Your task to perform on an android device: Search for sushi restaurants on Maps Image 0: 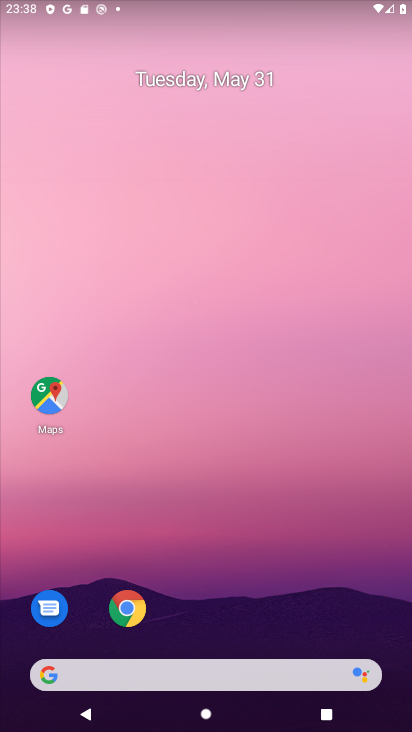
Step 0: click (59, 395)
Your task to perform on an android device: Search for sushi restaurants on Maps Image 1: 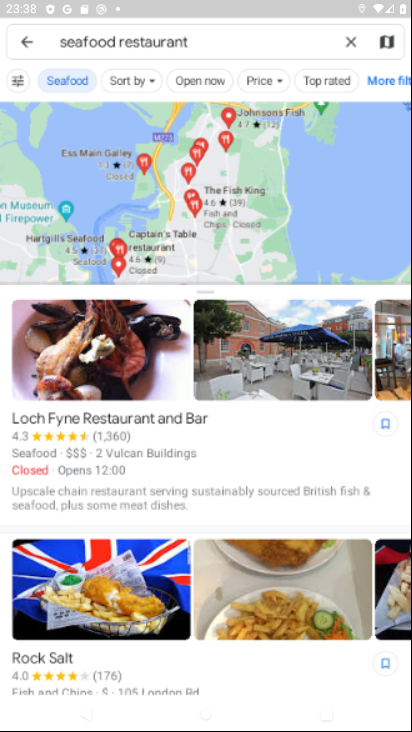
Step 1: click (348, 39)
Your task to perform on an android device: Search for sushi restaurants on Maps Image 2: 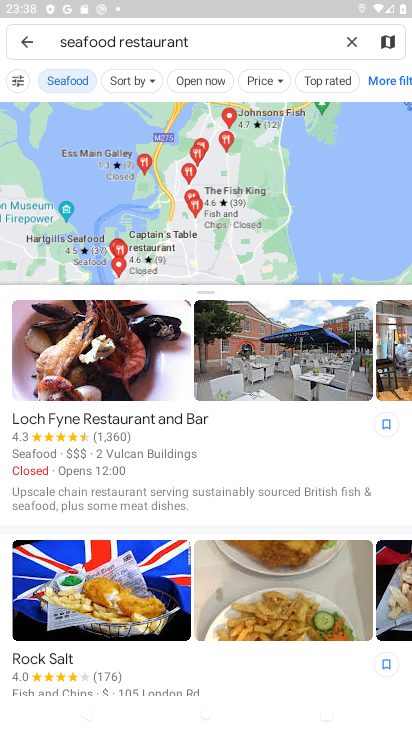
Step 2: click (349, 37)
Your task to perform on an android device: Search for sushi restaurants on Maps Image 3: 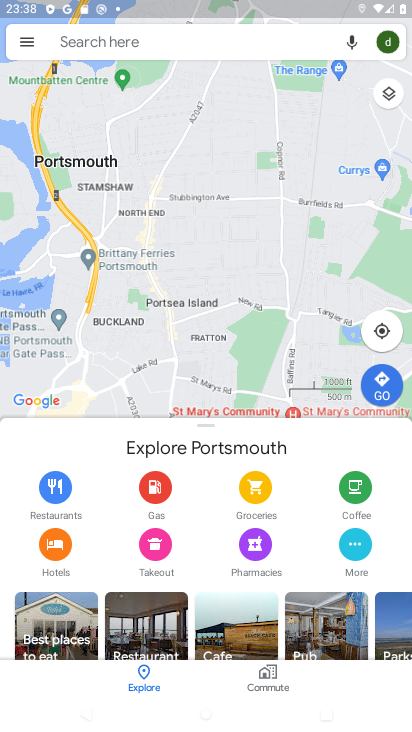
Step 3: click (210, 40)
Your task to perform on an android device: Search for sushi restaurants on Maps Image 4: 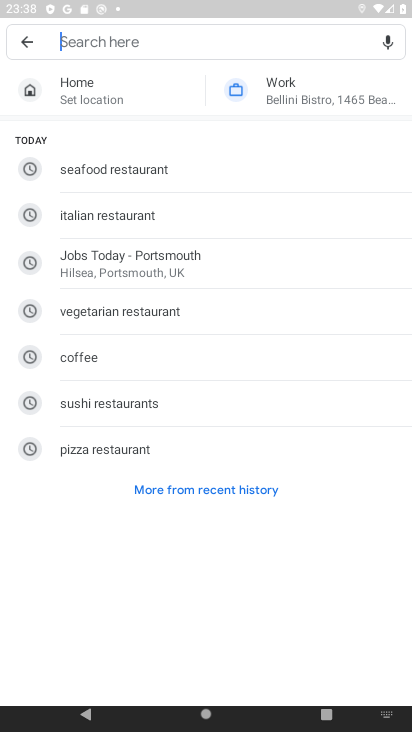
Step 4: click (210, 40)
Your task to perform on an android device: Search for sushi restaurants on Maps Image 5: 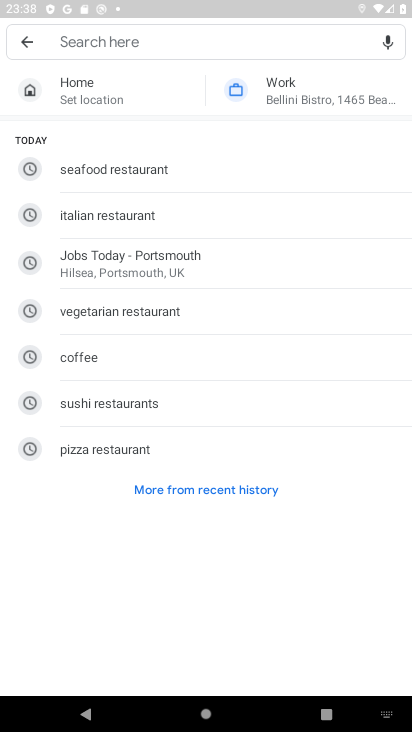
Step 5: click (210, 40)
Your task to perform on an android device: Search for sushi restaurants on Maps Image 6: 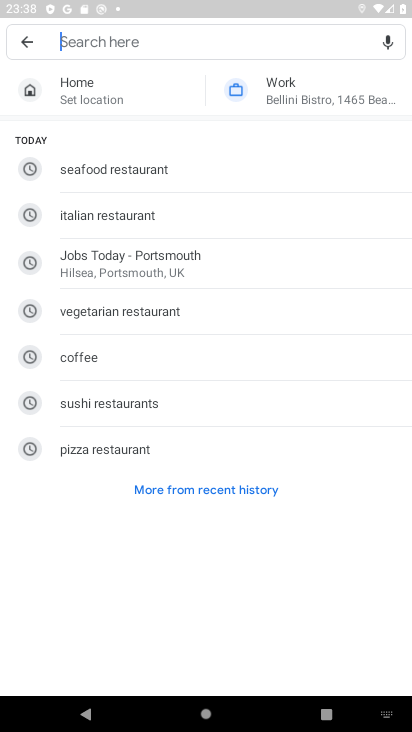
Step 6: type " sushi restaurants"
Your task to perform on an android device: Search for sushi restaurants on Maps Image 7: 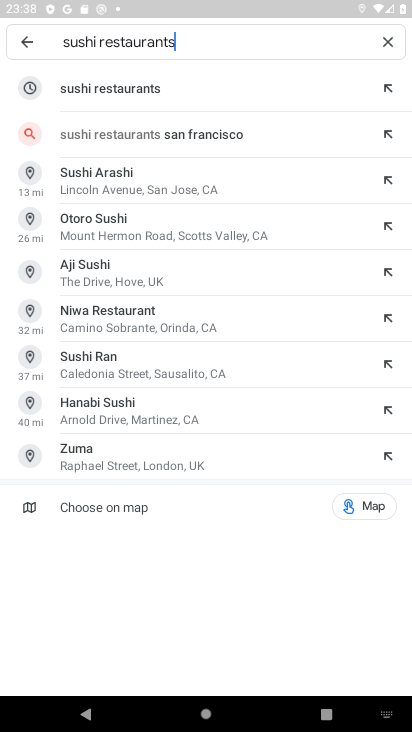
Step 7: click (53, 79)
Your task to perform on an android device: Search for sushi restaurants on Maps Image 8: 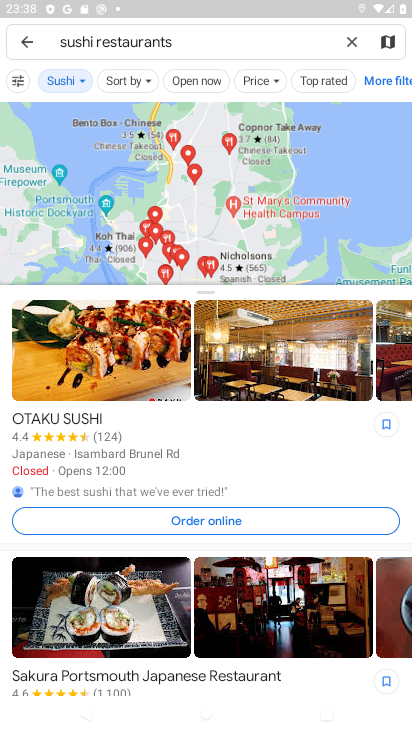
Step 8: task complete